Your task to perform on an android device: Add "energizer triple a" to the cart on newegg, then select checkout. Image 0: 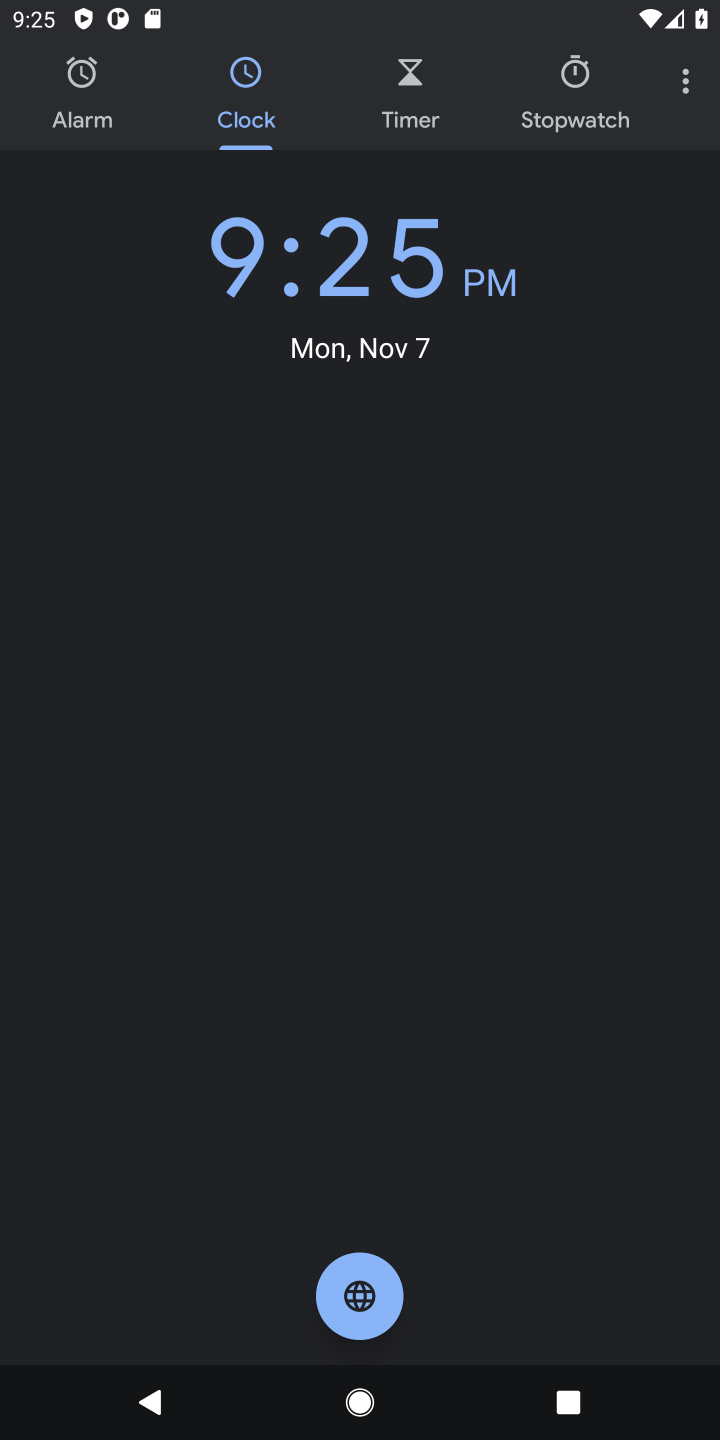
Step 0: press home button
Your task to perform on an android device: Add "energizer triple a" to the cart on newegg, then select checkout. Image 1: 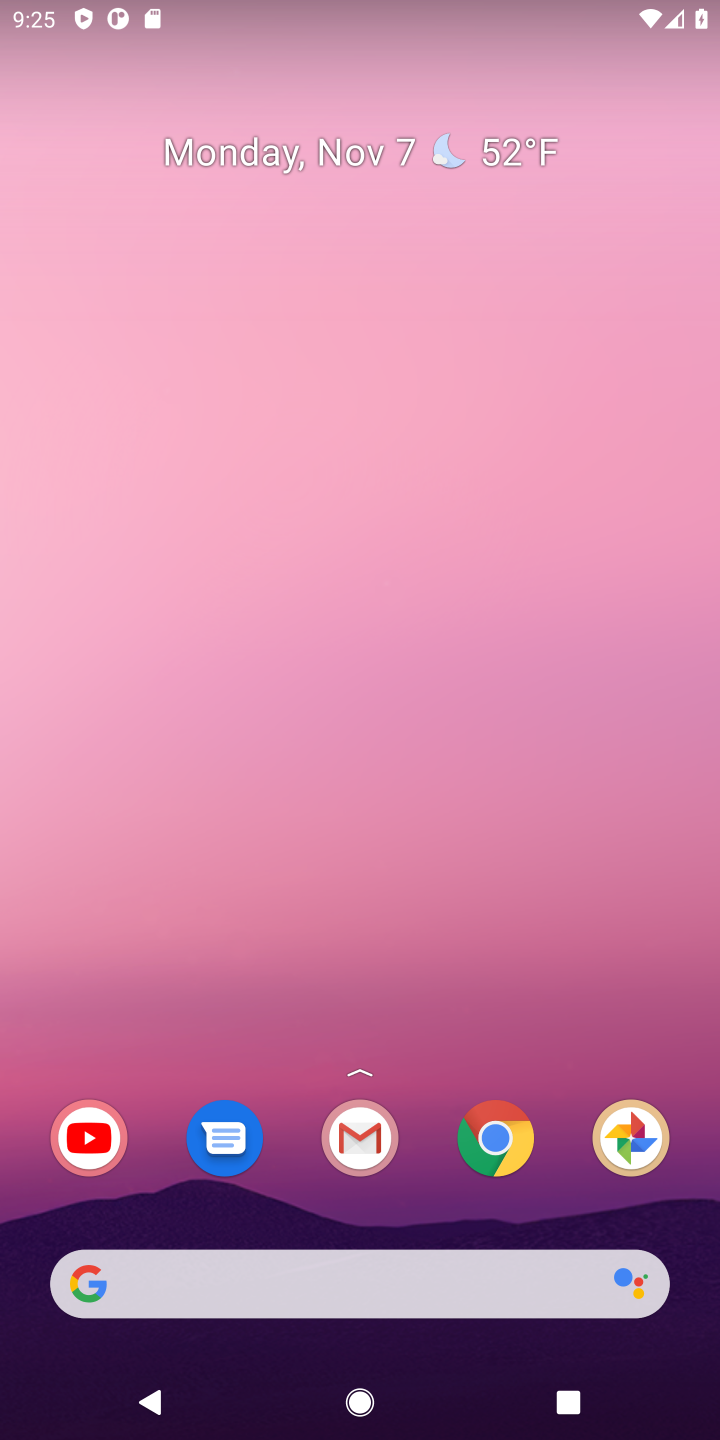
Step 1: click (498, 1169)
Your task to perform on an android device: Add "energizer triple a" to the cart on newegg, then select checkout. Image 2: 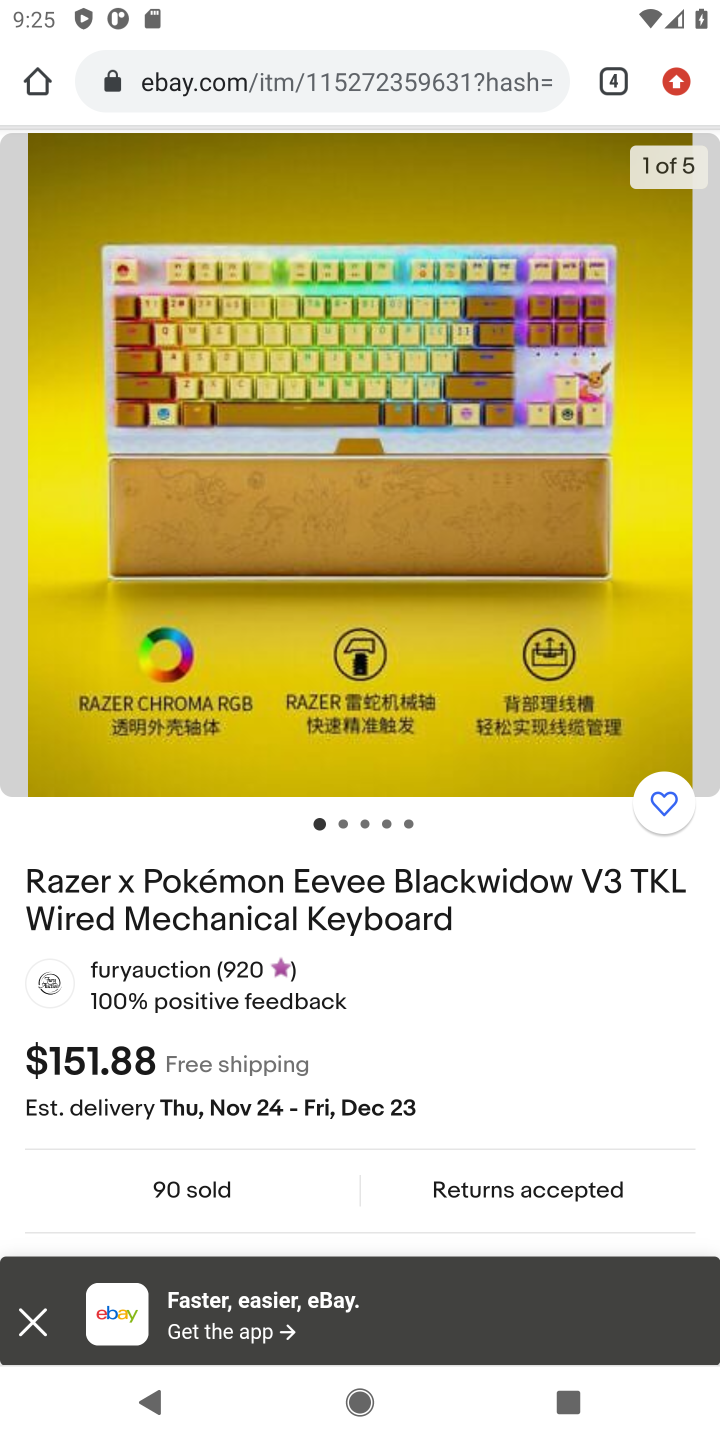
Step 2: click (450, 72)
Your task to perform on an android device: Add "energizer triple a" to the cart on newegg, then select checkout. Image 3: 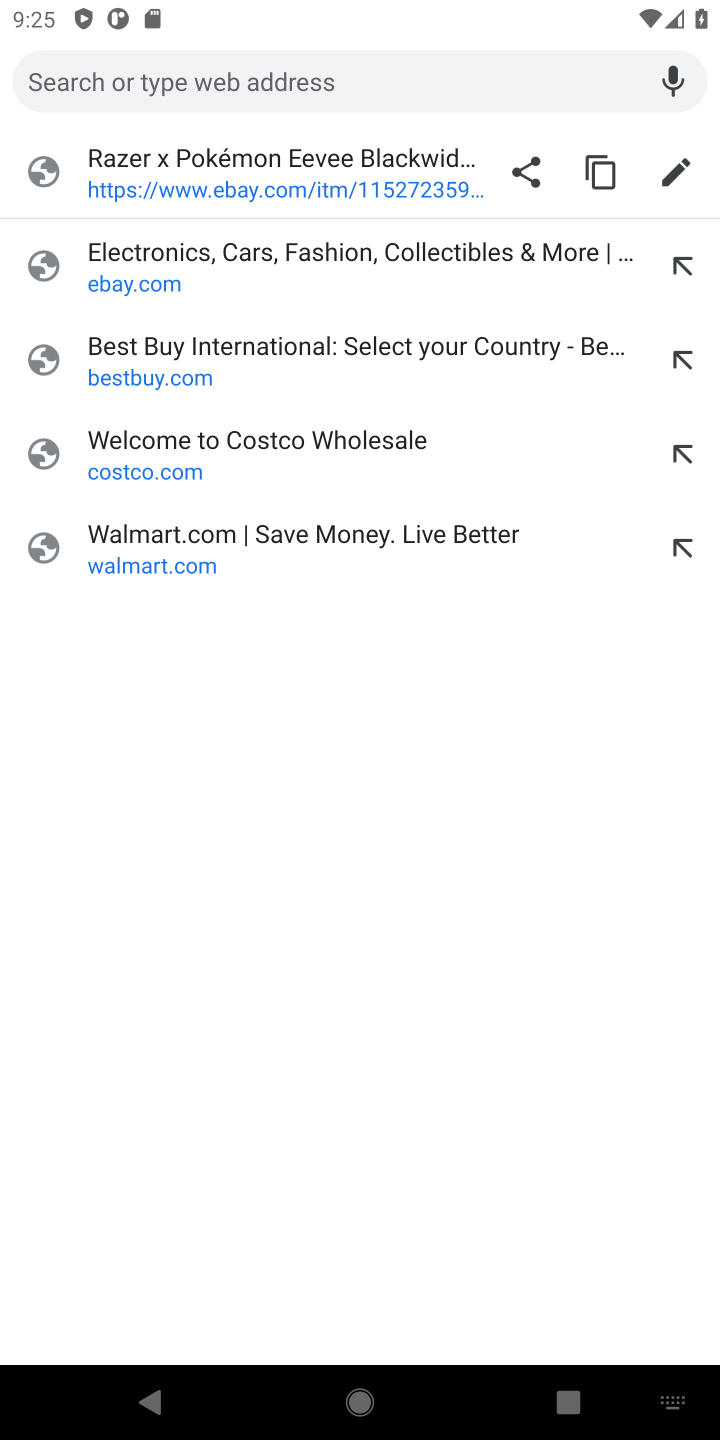
Step 3: type "newegg"
Your task to perform on an android device: Add "energizer triple a" to the cart on newegg, then select checkout. Image 4: 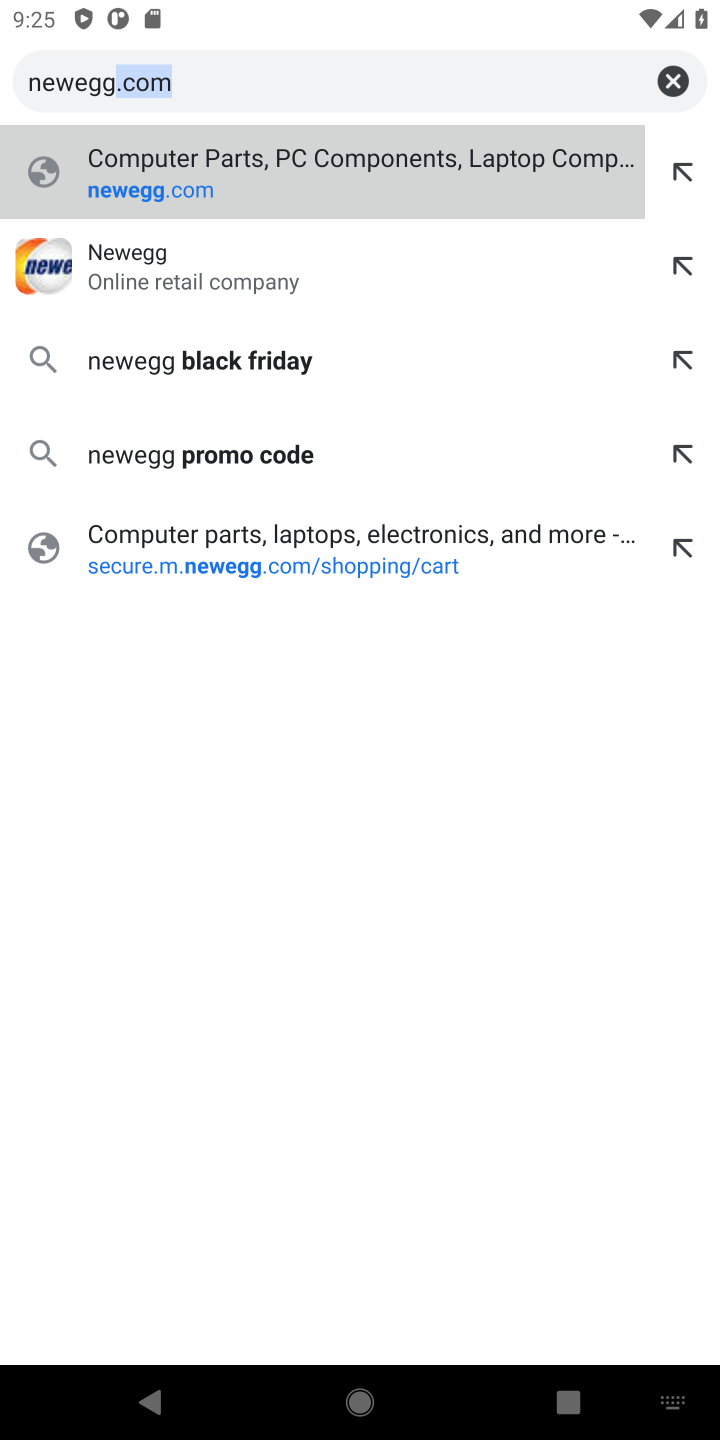
Step 4: click (278, 198)
Your task to perform on an android device: Add "energizer triple a" to the cart on newegg, then select checkout. Image 5: 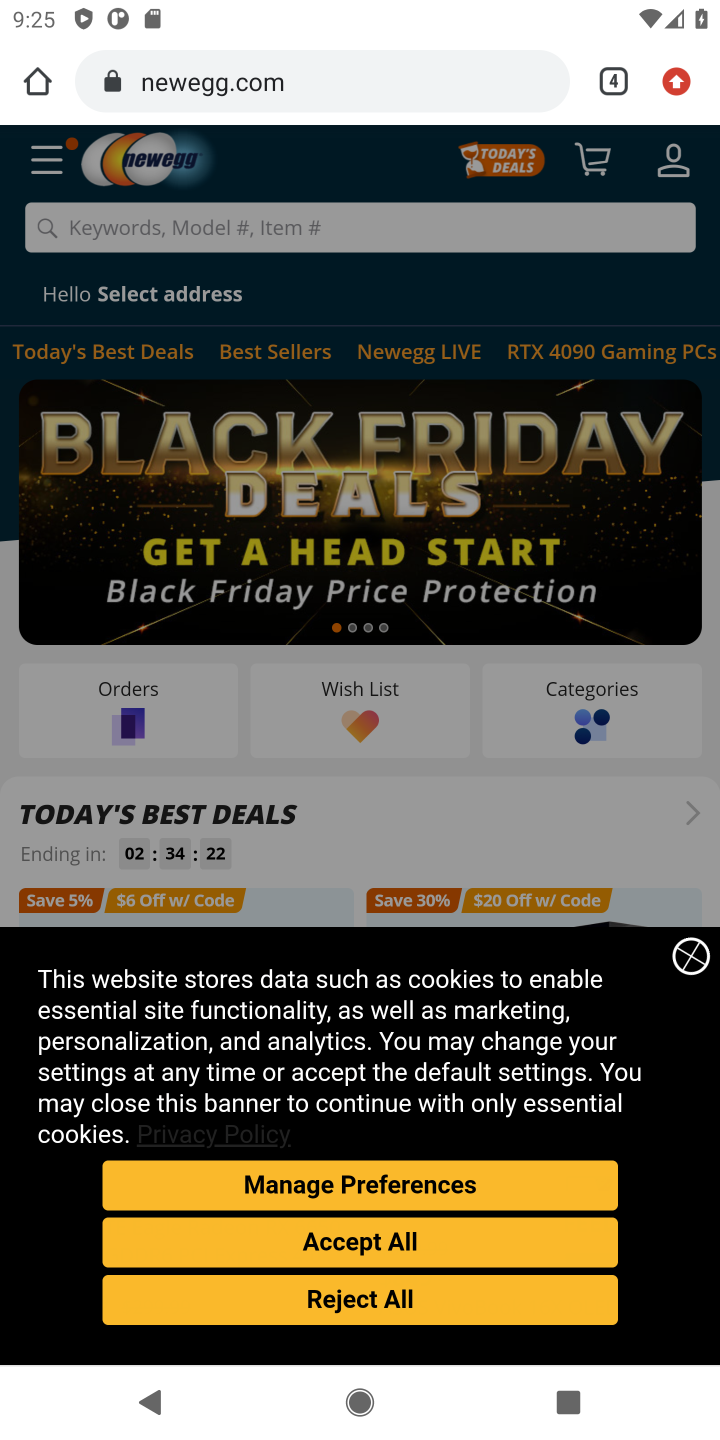
Step 5: click (343, 228)
Your task to perform on an android device: Add "energizer triple a" to the cart on newegg, then select checkout. Image 6: 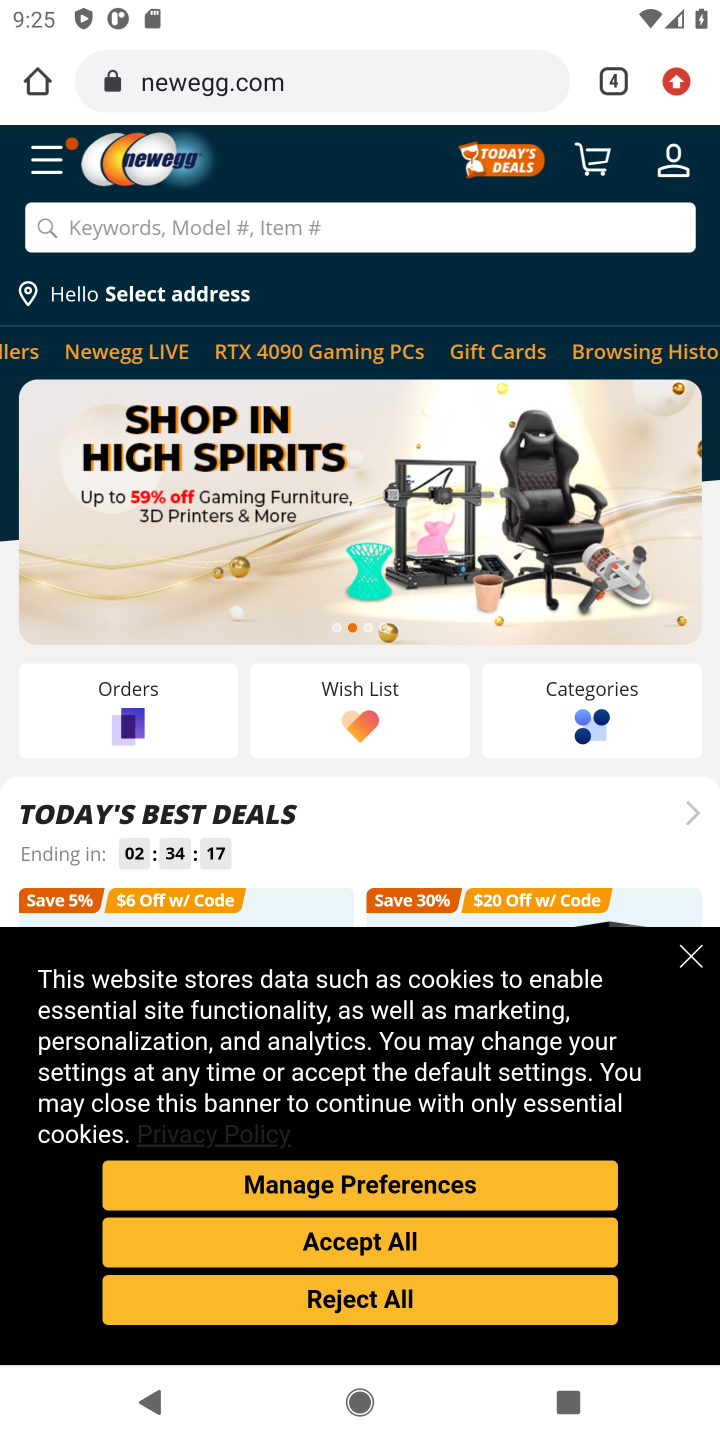
Step 6: click (396, 222)
Your task to perform on an android device: Add "energizer triple a" to the cart on newegg, then select checkout. Image 7: 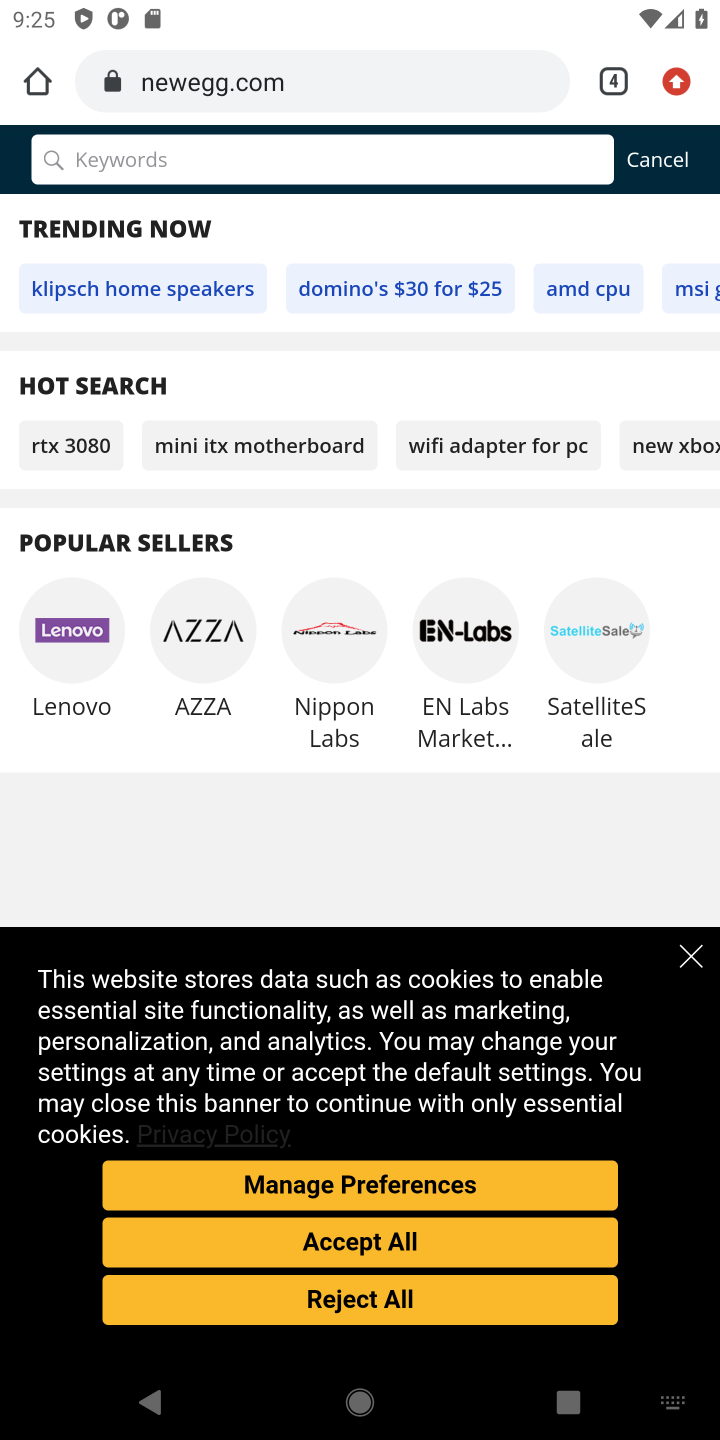
Step 7: type "energizer triple a"
Your task to perform on an android device: Add "energizer triple a" to the cart on newegg, then select checkout. Image 8: 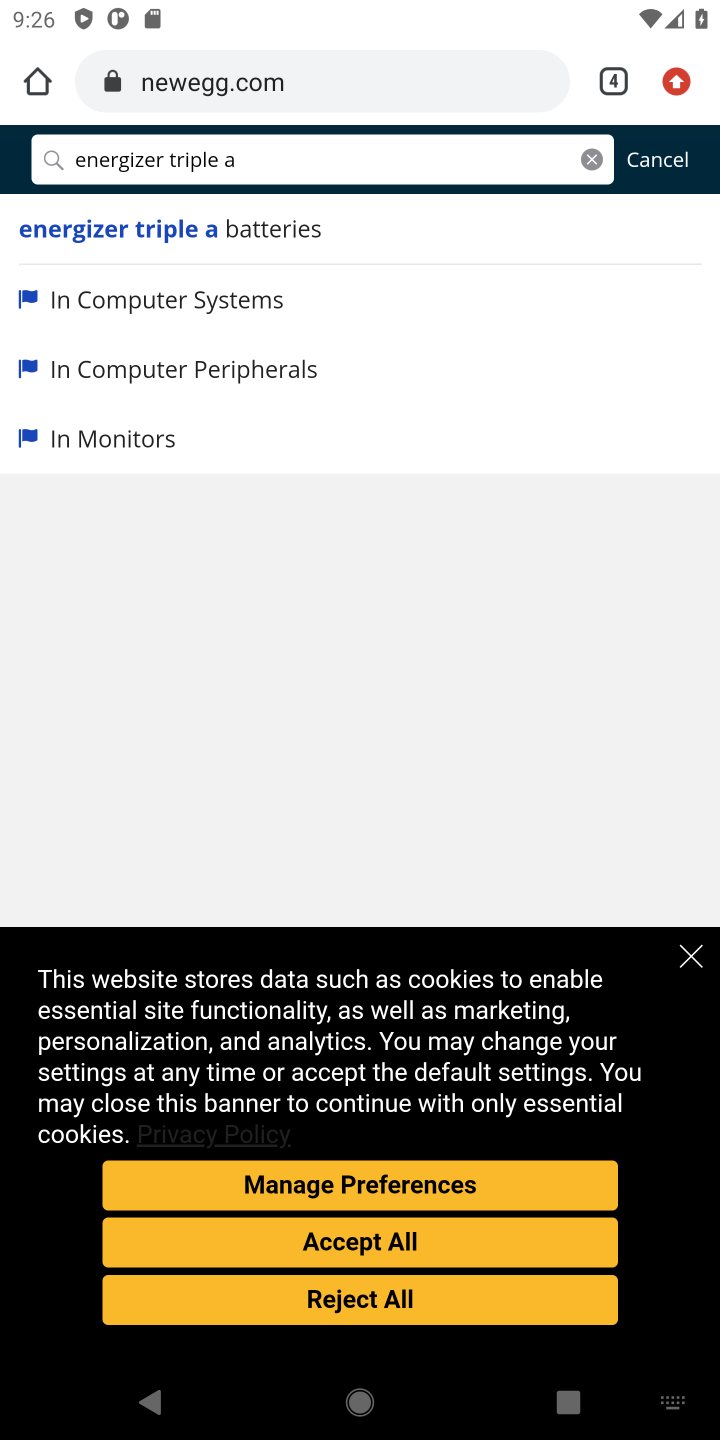
Step 8: click (284, 233)
Your task to perform on an android device: Add "energizer triple a" to the cart on newegg, then select checkout. Image 9: 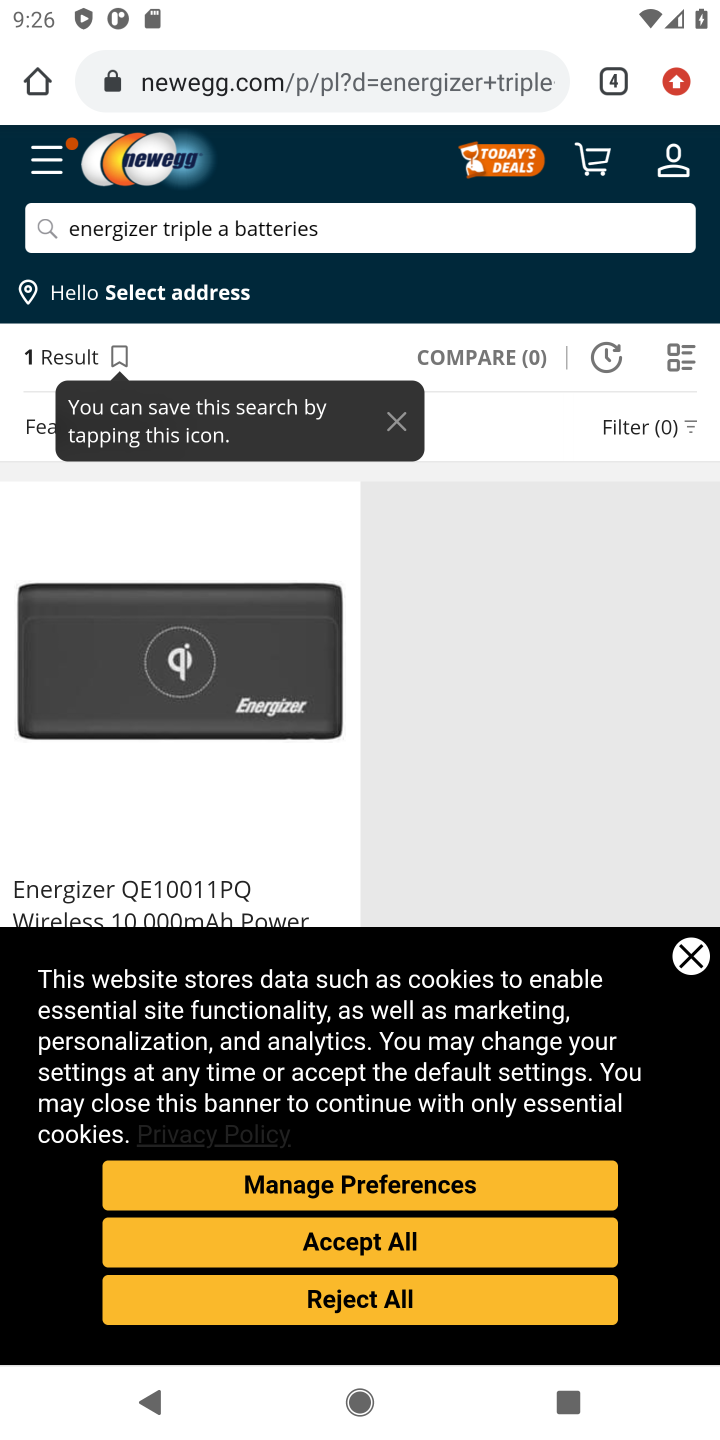
Step 9: task complete